Your task to perform on an android device: Show me popular videos on Youtube Image 0: 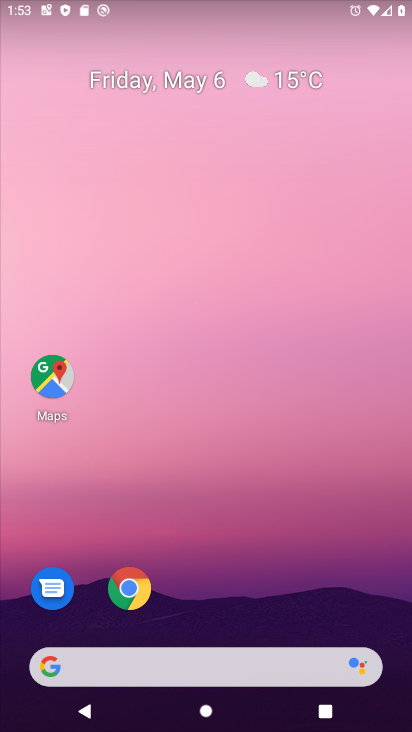
Step 0: drag from (211, 630) to (239, 114)
Your task to perform on an android device: Show me popular videos on Youtube Image 1: 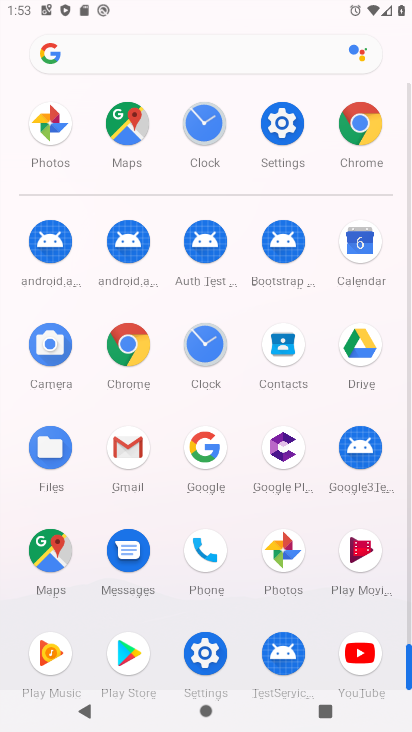
Step 1: drag from (236, 613) to (244, 237)
Your task to perform on an android device: Show me popular videos on Youtube Image 2: 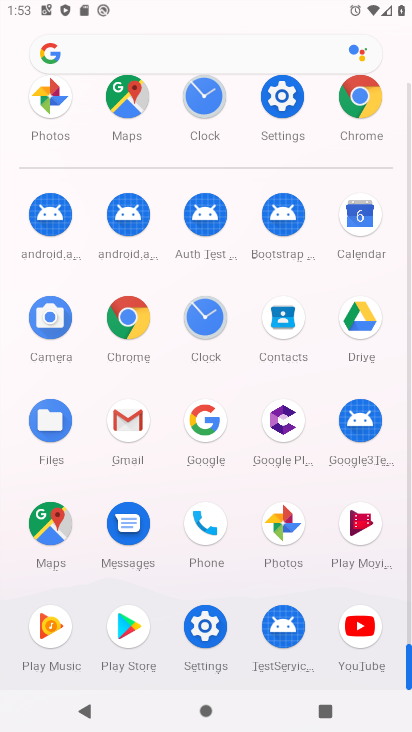
Step 2: drag from (230, 599) to (238, 193)
Your task to perform on an android device: Show me popular videos on Youtube Image 3: 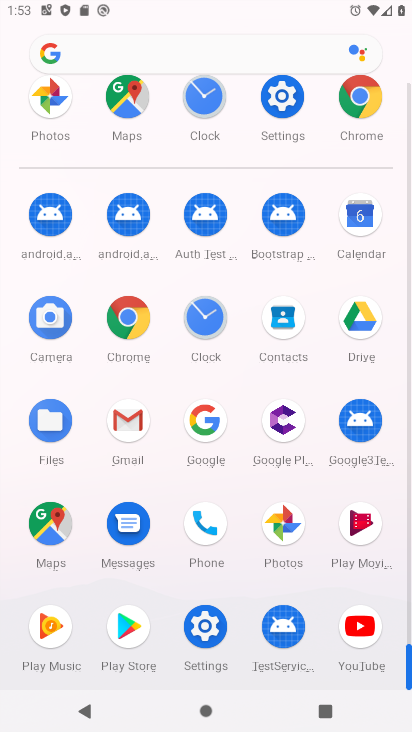
Step 3: click (355, 642)
Your task to perform on an android device: Show me popular videos on Youtube Image 4: 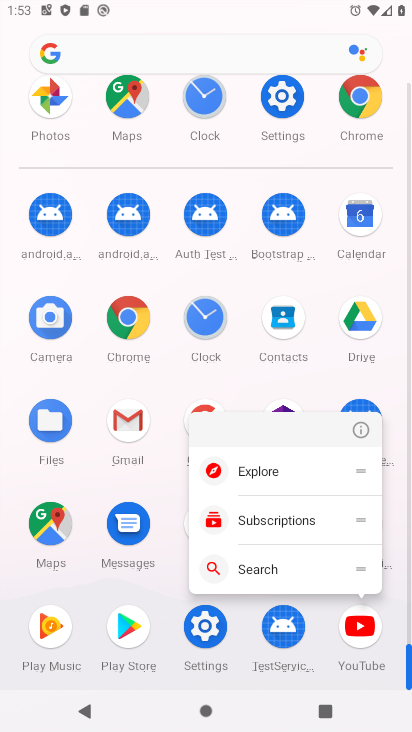
Step 4: click (362, 429)
Your task to perform on an android device: Show me popular videos on Youtube Image 5: 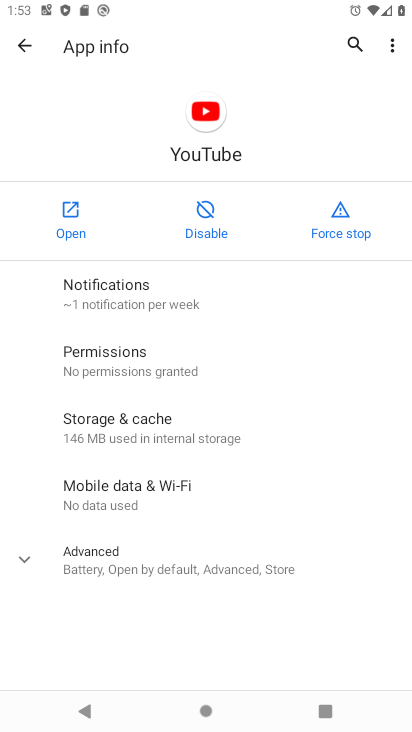
Step 5: click (80, 225)
Your task to perform on an android device: Show me popular videos on Youtube Image 6: 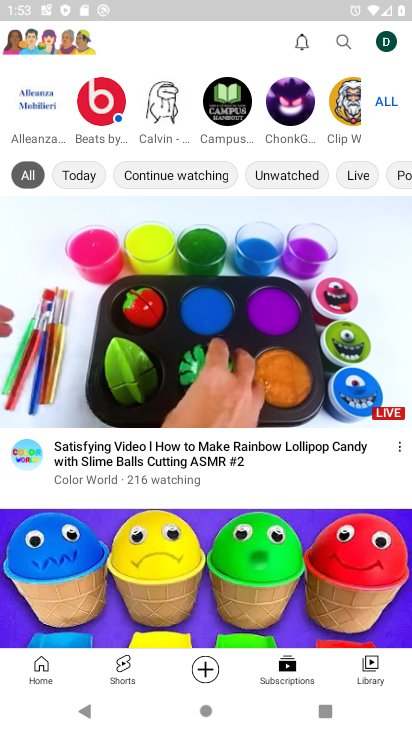
Step 6: drag from (260, 633) to (355, 120)
Your task to perform on an android device: Show me popular videos on Youtube Image 7: 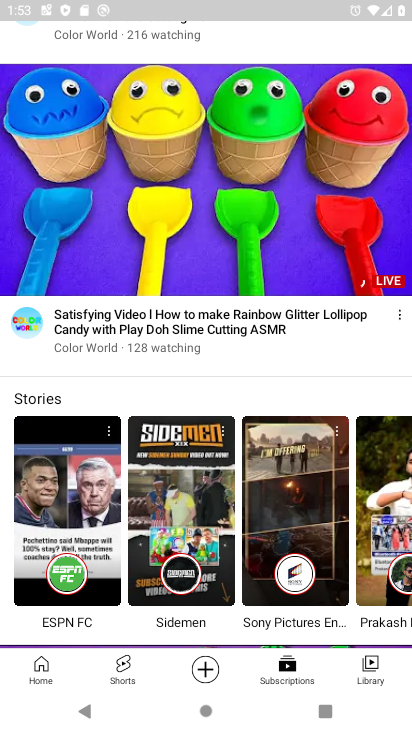
Step 7: drag from (244, 536) to (286, 225)
Your task to perform on an android device: Show me popular videos on Youtube Image 8: 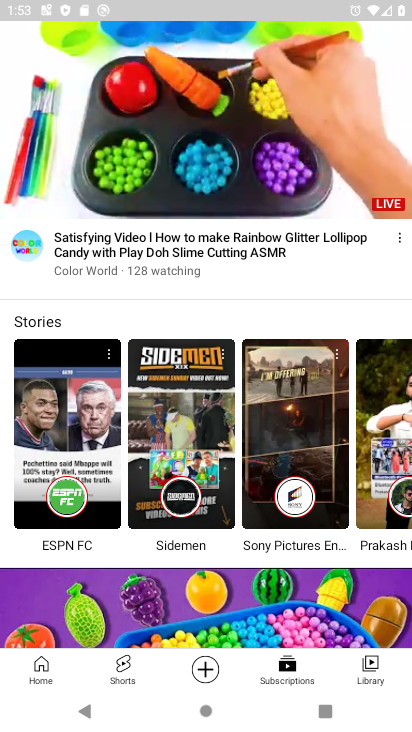
Step 8: drag from (246, 527) to (287, 379)
Your task to perform on an android device: Show me popular videos on Youtube Image 9: 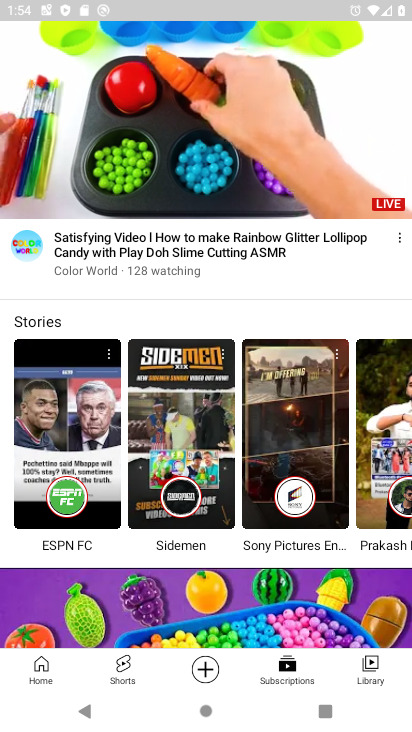
Step 9: drag from (255, 600) to (276, 400)
Your task to perform on an android device: Show me popular videos on Youtube Image 10: 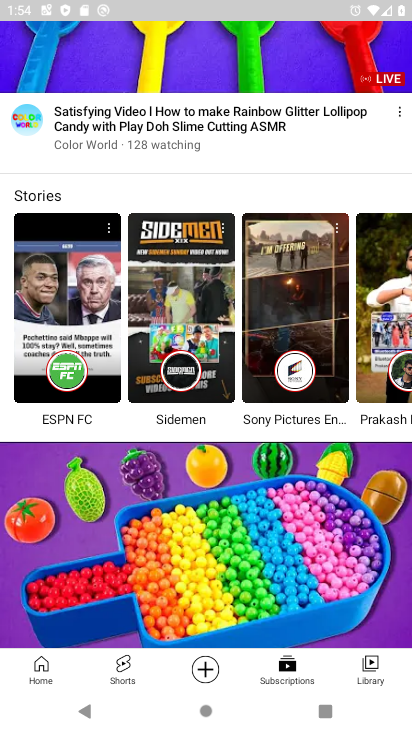
Step 10: drag from (282, 534) to (314, 339)
Your task to perform on an android device: Show me popular videos on Youtube Image 11: 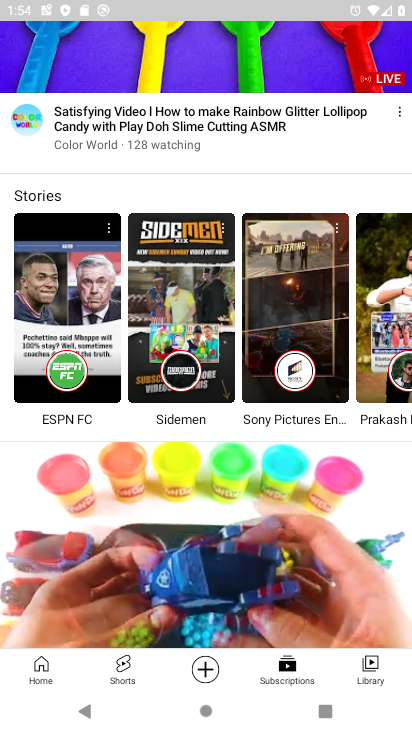
Step 11: drag from (238, 515) to (269, 230)
Your task to perform on an android device: Show me popular videos on Youtube Image 12: 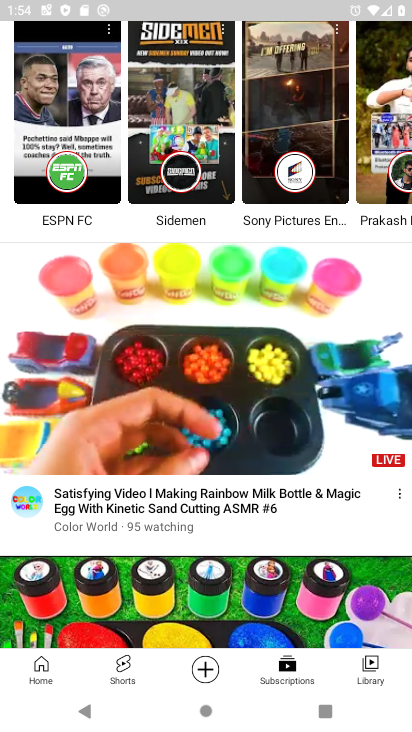
Step 12: drag from (270, 167) to (270, 405)
Your task to perform on an android device: Show me popular videos on Youtube Image 13: 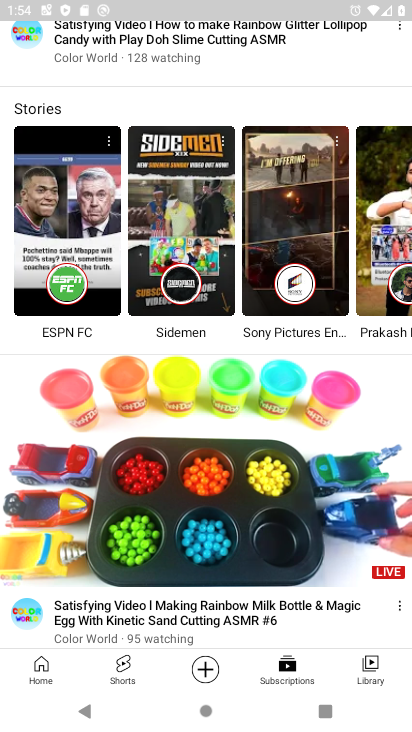
Step 13: drag from (288, 422) to (312, 169)
Your task to perform on an android device: Show me popular videos on Youtube Image 14: 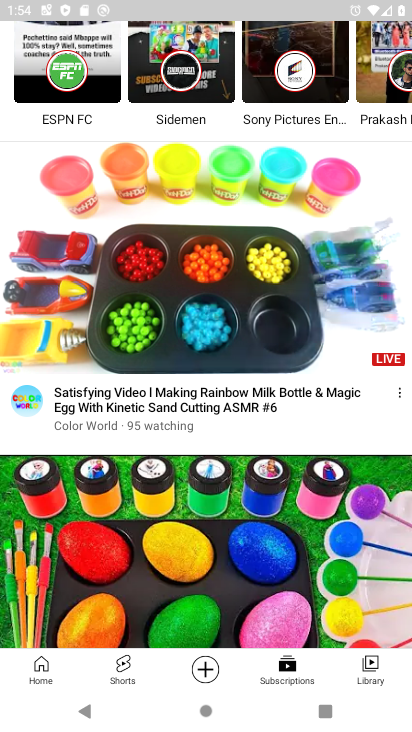
Step 14: drag from (289, 174) to (265, 464)
Your task to perform on an android device: Show me popular videos on Youtube Image 15: 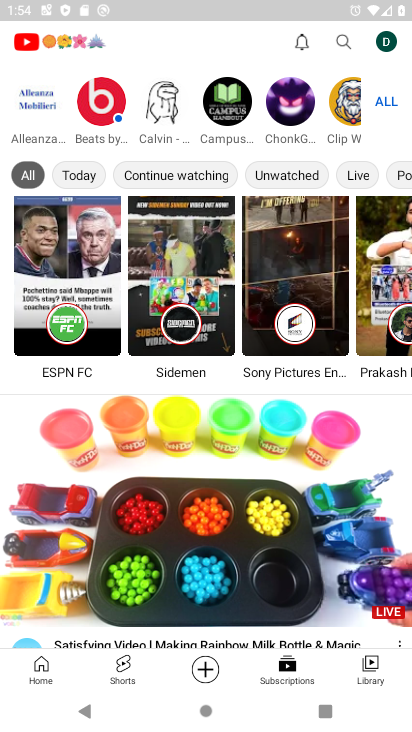
Step 15: drag from (289, 219) to (304, 435)
Your task to perform on an android device: Show me popular videos on Youtube Image 16: 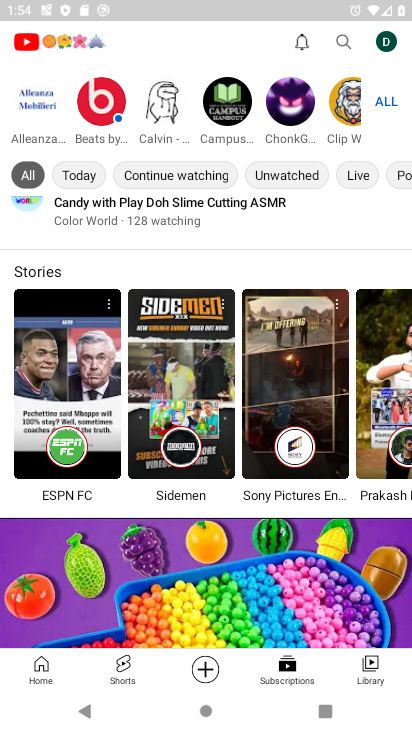
Step 16: drag from (173, 590) to (301, 45)
Your task to perform on an android device: Show me popular videos on Youtube Image 17: 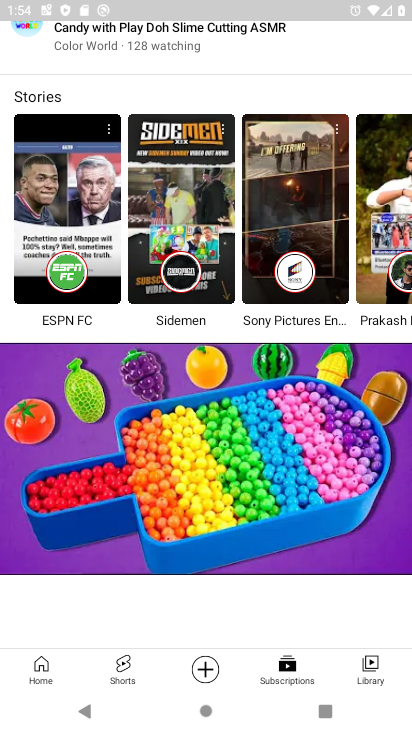
Step 17: drag from (165, 585) to (222, 348)
Your task to perform on an android device: Show me popular videos on Youtube Image 18: 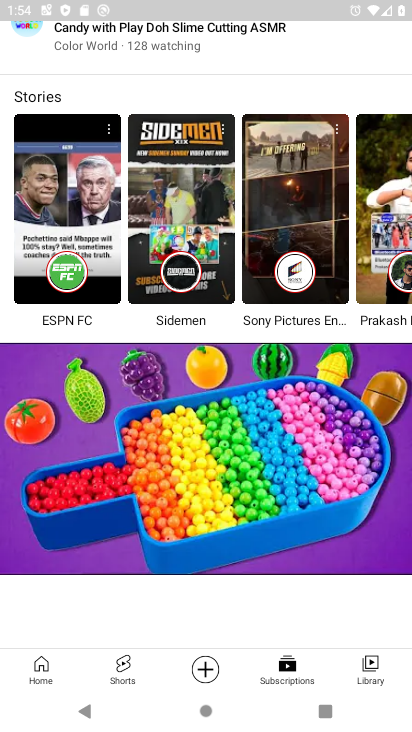
Step 18: drag from (212, 614) to (310, 237)
Your task to perform on an android device: Show me popular videos on Youtube Image 19: 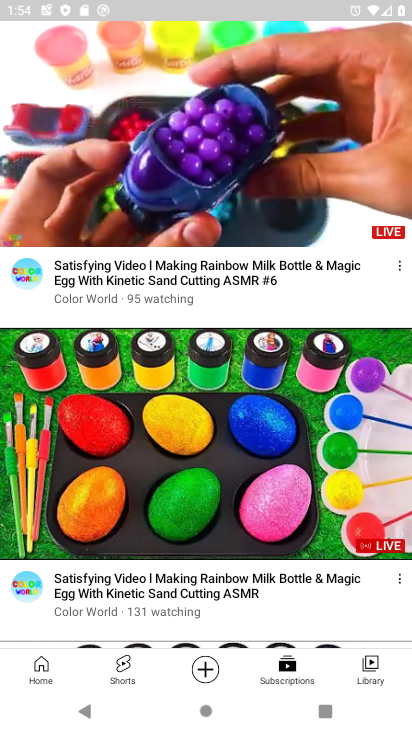
Step 19: drag from (198, 587) to (291, 211)
Your task to perform on an android device: Show me popular videos on Youtube Image 20: 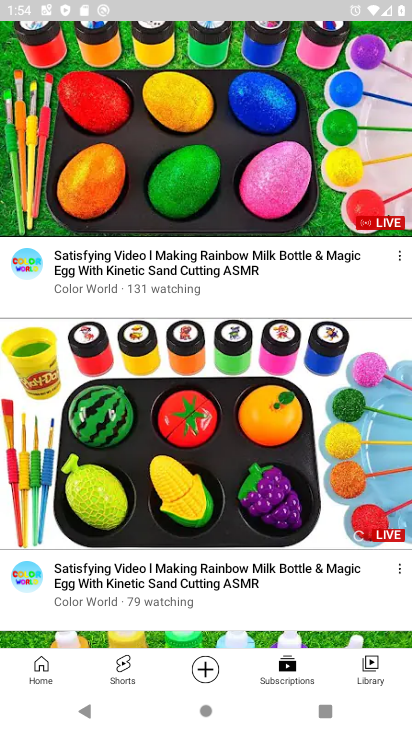
Step 20: drag from (157, 536) to (209, 219)
Your task to perform on an android device: Show me popular videos on Youtube Image 21: 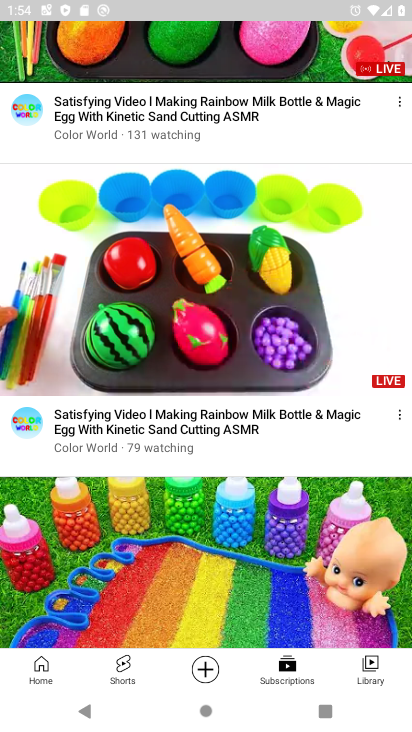
Step 21: drag from (228, 481) to (297, 141)
Your task to perform on an android device: Show me popular videos on Youtube Image 22: 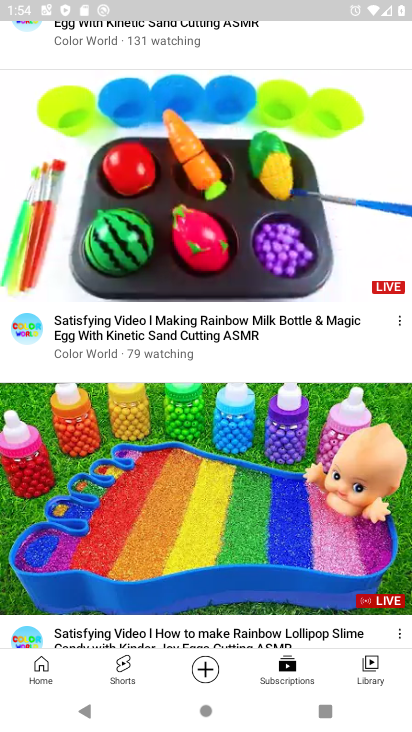
Step 22: click (375, 659)
Your task to perform on an android device: Show me popular videos on Youtube Image 23: 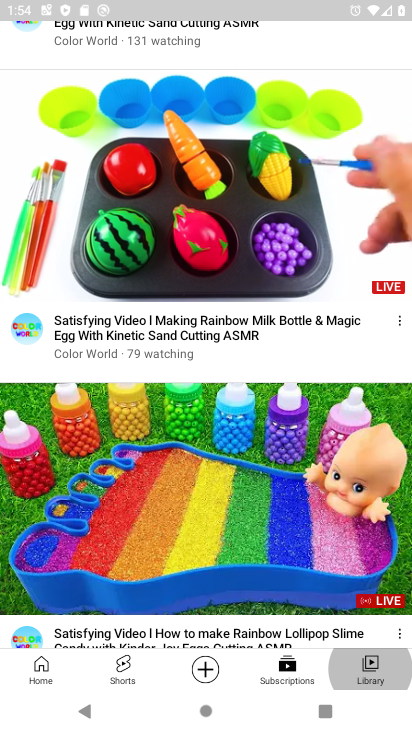
Step 23: click (295, 673)
Your task to perform on an android device: Show me popular videos on Youtube Image 24: 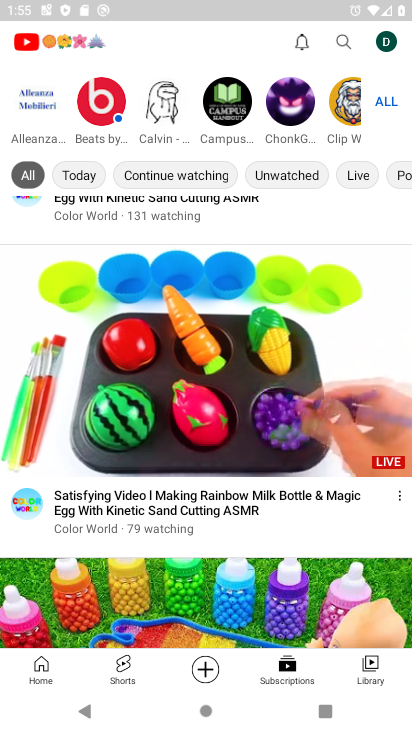
Step 24: task complete